Your task to perform on an android device: turn on showing notifications on the lock screen Image 0: 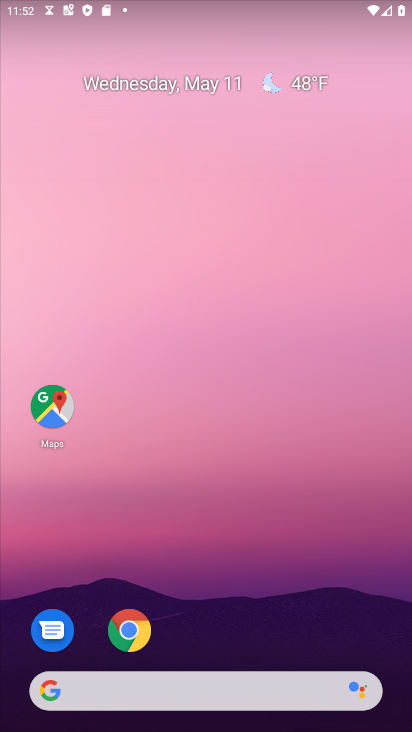
Step 0: drag from (208, 722) to (140, 137)
Your task to perform on an android device: turn on showing notifications on the lock screen Image 1: 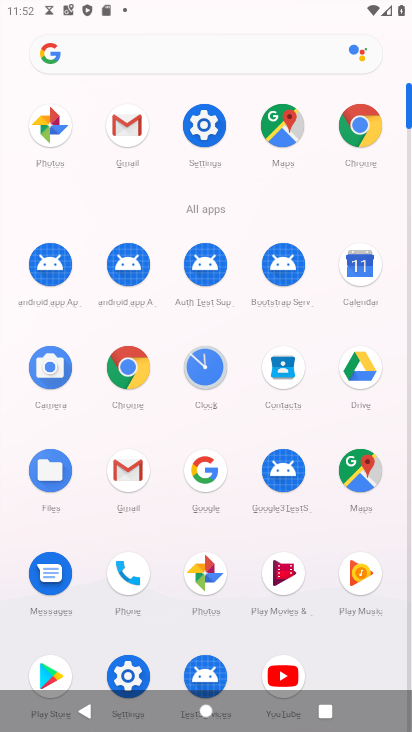
Step 1: click (206, 122)
Your task to perform on an android device: turn on showing notifications on the lock screen Image 2: 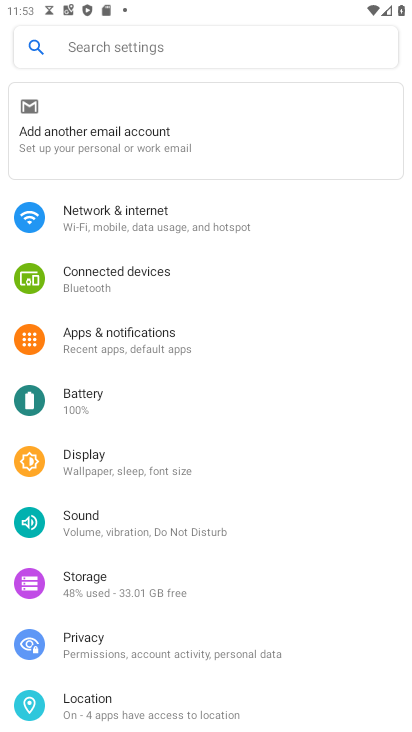
Step 2: click (117, 336)
Your task to perform on an android device: turn on showing notifications on the lock screen Image 3: 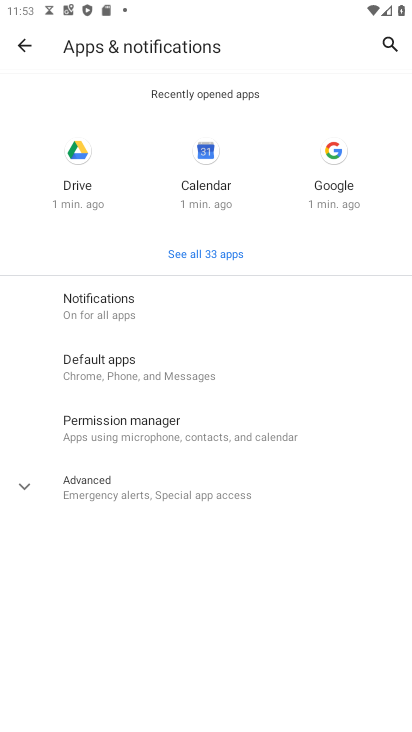
Step 3: click (82, 307)
Your task to perform on an android device: turn on showing notifications on the lock screen Image 4: 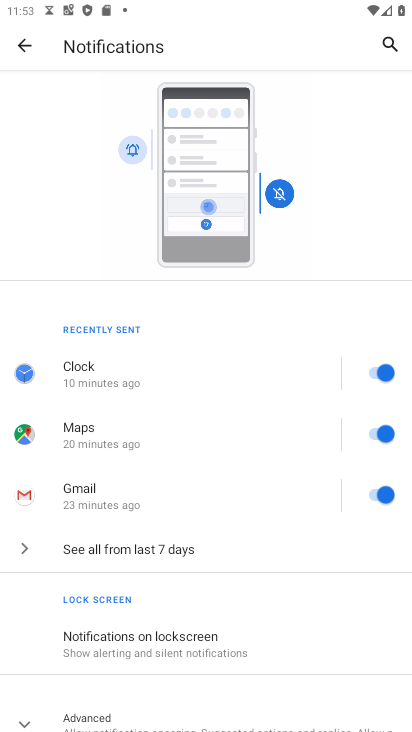
Step 4: click (138, 647)
Your task to perform on an android device: turn on showing notifications on the lock screen Image 5: 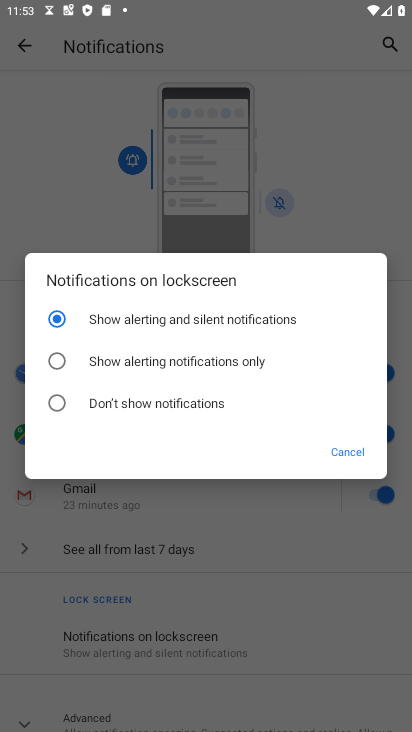
Step 5: click (330, 444)
Your task to perform on an android device: turn on showing notifications on the lock screen Image 6: 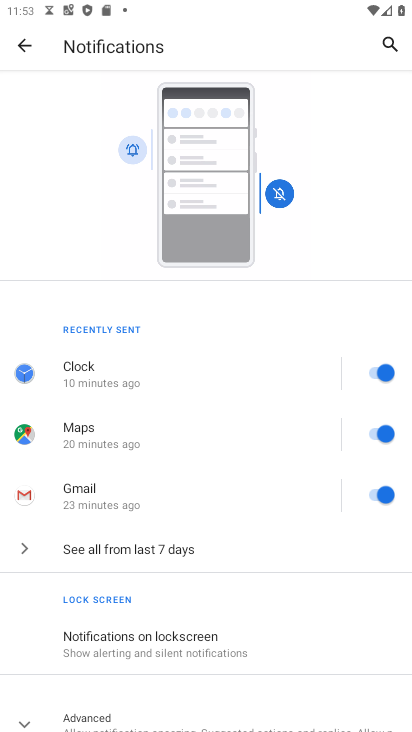
Step 6: task complete